Your task to perform on an android device: Go to privacy settings Image 0: 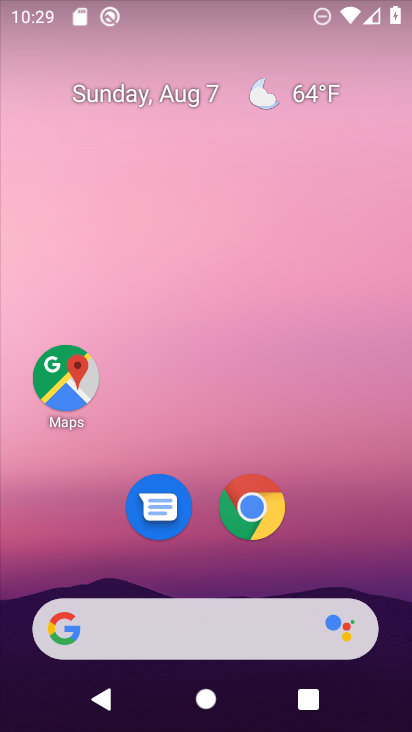
Step 0: drag from (340, 537) to (282, 0)
Your task to perform on an android device: Go to privacy settings Image 1: 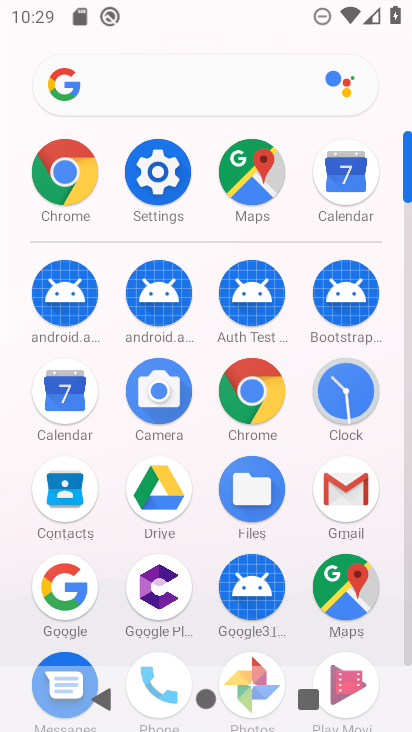
Step 1: drag from (205, 536) to (246, 177)
Your task to perform on an android device: Go to privacy settings Image 2: 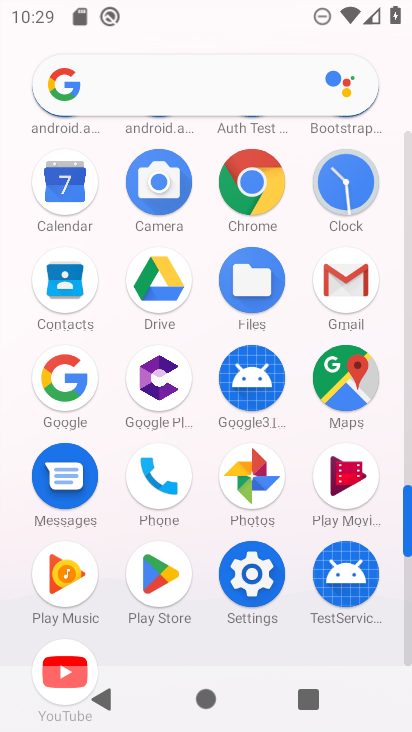
Step 2: click (264, 569)
Your task to perform on an android device: Go to privacy settings Image 3: 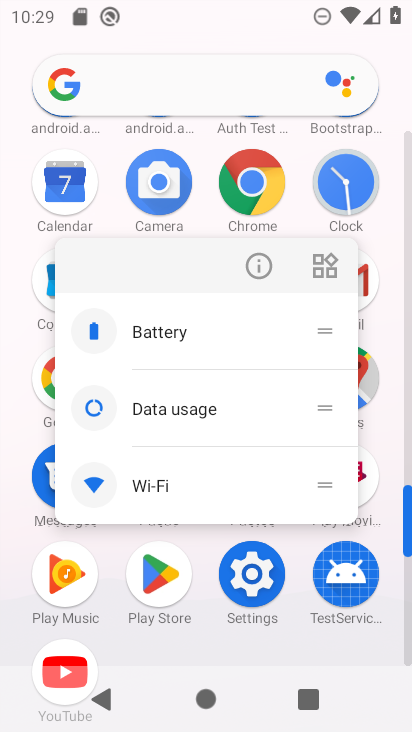
Step 3: click (263, 576)
Your task to perform on an android device: Go to privacy settings Image 4: 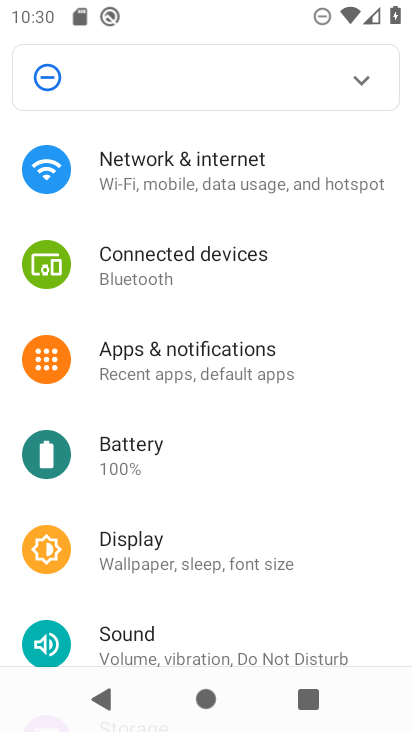
Step 4: drag from (322, 594) to (314, 216)
Your task to perform on an android device: Go to privacy settings Image 5: 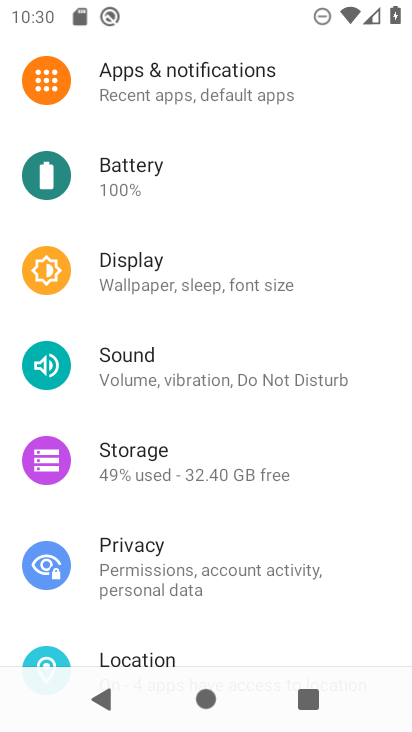
Step 5: click (156, 553)
Your task to perform on an android device: Go to privacy settings Image 6: 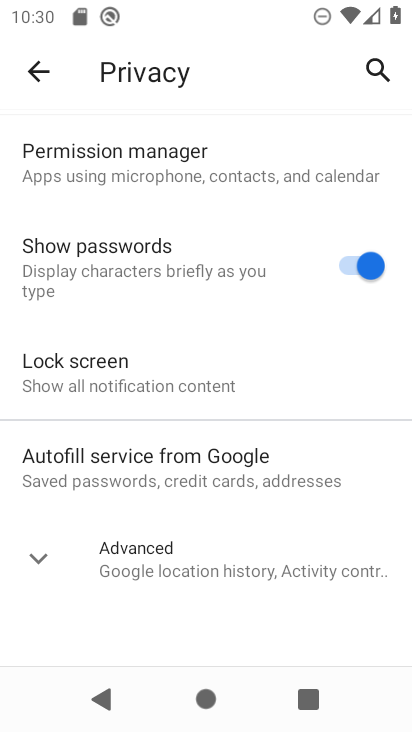
Step 6: task complete